Your task to perform on an android device: Turn off the flashlight Image 0: 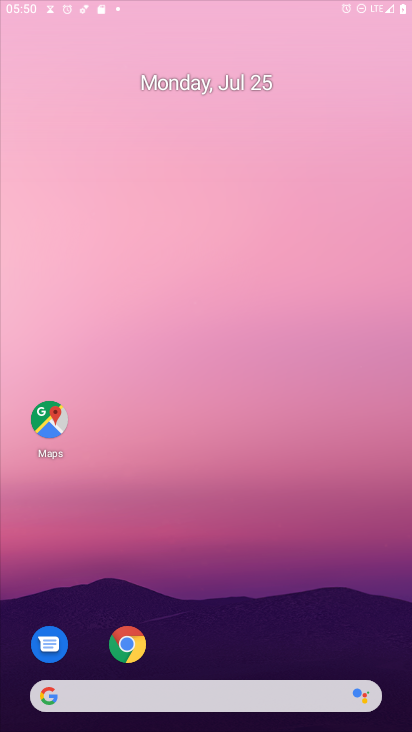
Step 0: press home button
Your task to perform on an android device: Turn off the flashlight Image 1: 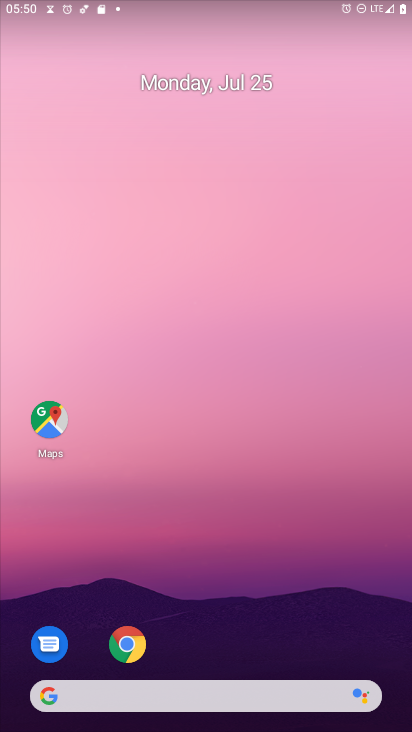
Step 1: task complete